Your task to perform on an android device: Go to display settings Image 0: 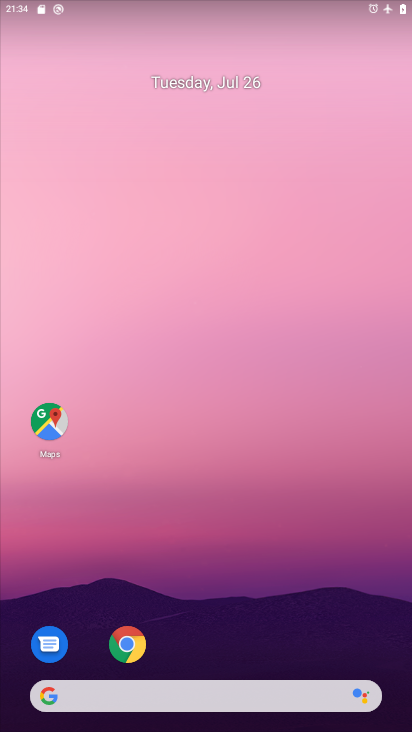
Step 0: drag from (307, 669) to (264, 211)
Your task to perform on an android device: Go to display settings Image 1: 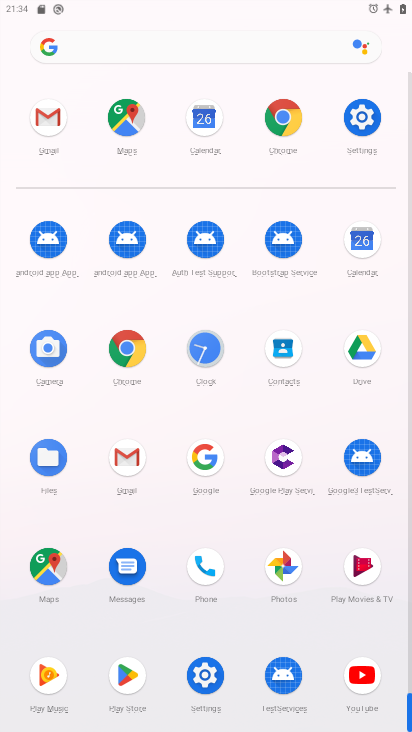
Step 1: click (349, 113)
Your task to perform on an android device: Go to display settings Image 2: 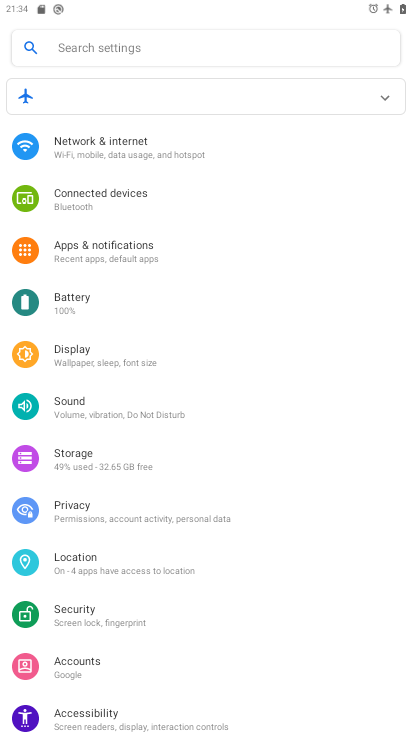
Step 2: click (98, 353)
Your task to perform on an android device: Go to display settings Image 3: 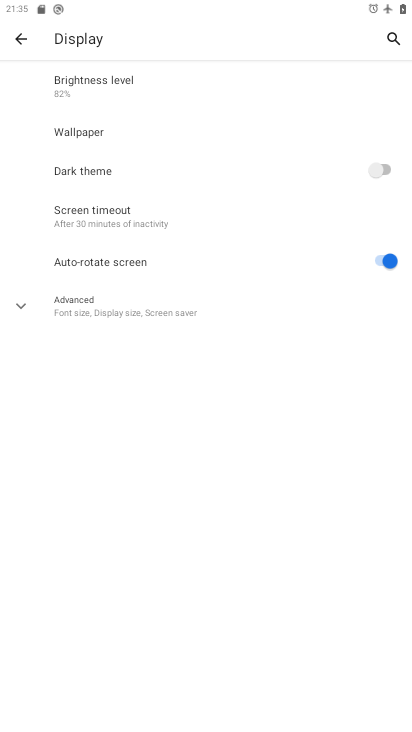
Step 3: task complete